Your task to perform on an android device: Go to Android settings Image 0: 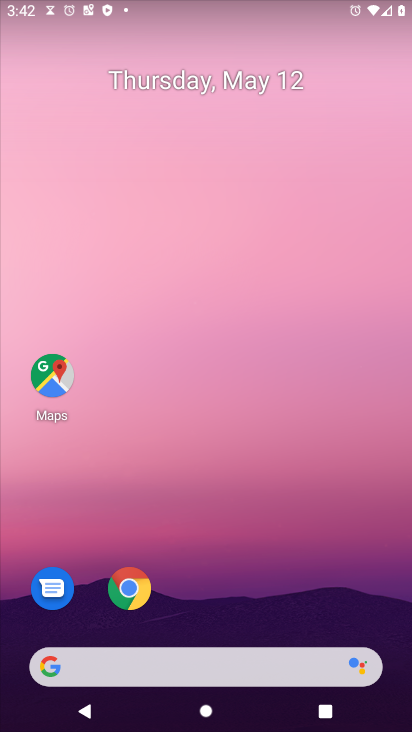
Step 0: drag from (233, 530) to (171, 49)
Your task to perform on an android device: Go to Android settings Image 1: 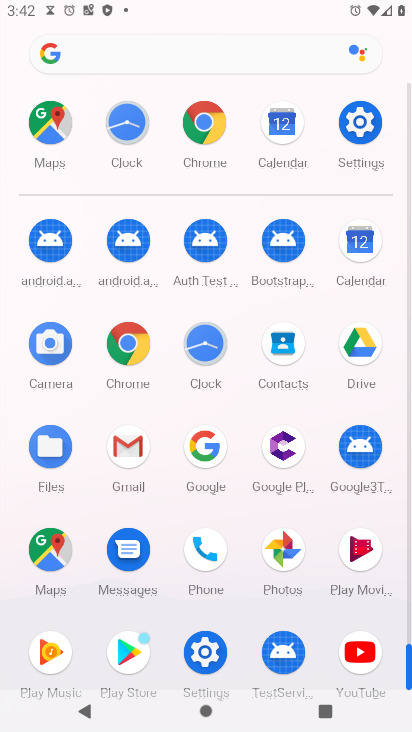
Step 1: click (200, 651)
Your task to perform on an android device: Go to Android settings Image 2: 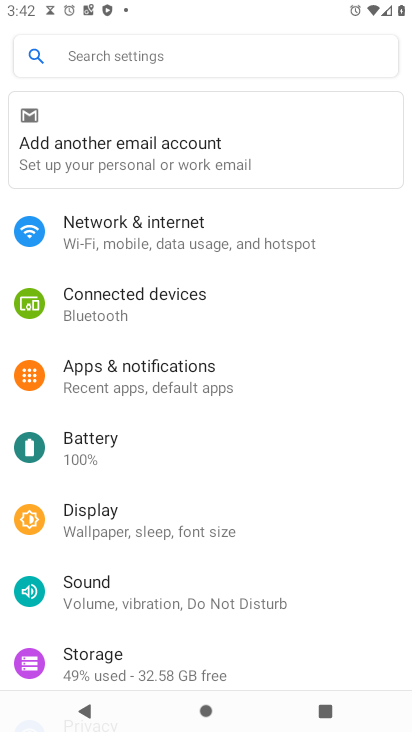
Step 2: task complete